Your task to perform on an android device: open a new tab in the chrome app Image 0: 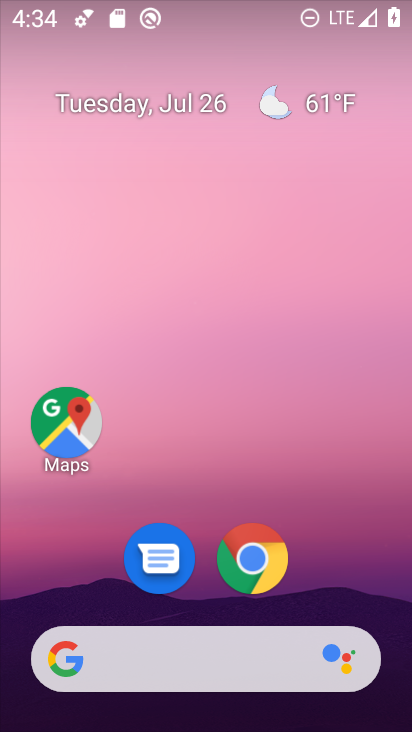
Step 0: click (254, 559)
Your task to perform on an android device: open a new tab in the chrome app Image 1: 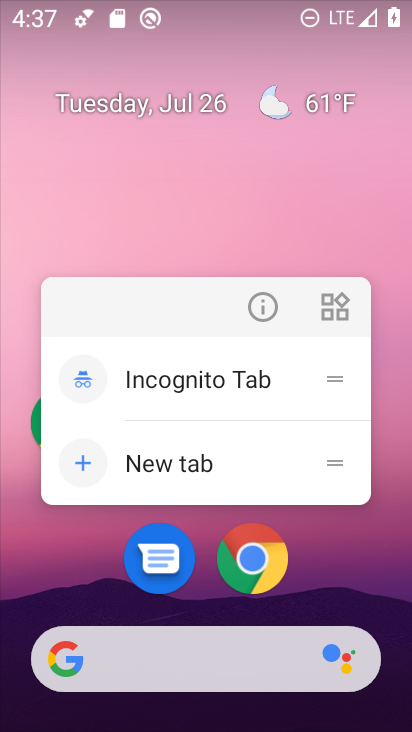
Step 1: click (251, 559)
Your task to perform on an android device: open a new tab in the chrome app Image 2: 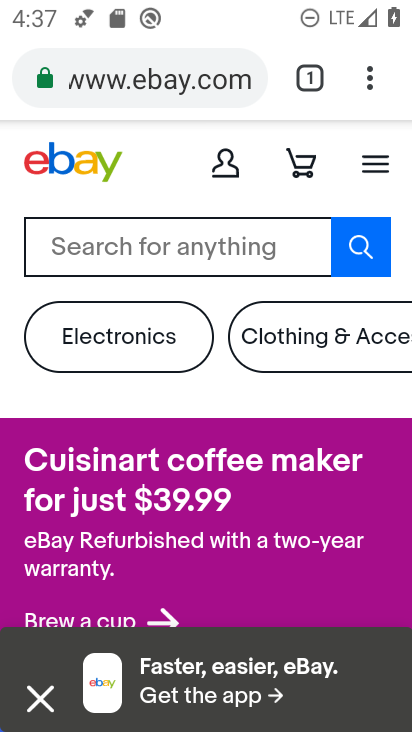
Step 2: click (312, 82)
Your task to perform on an android device: open a new tab in the chrome app Image 3: 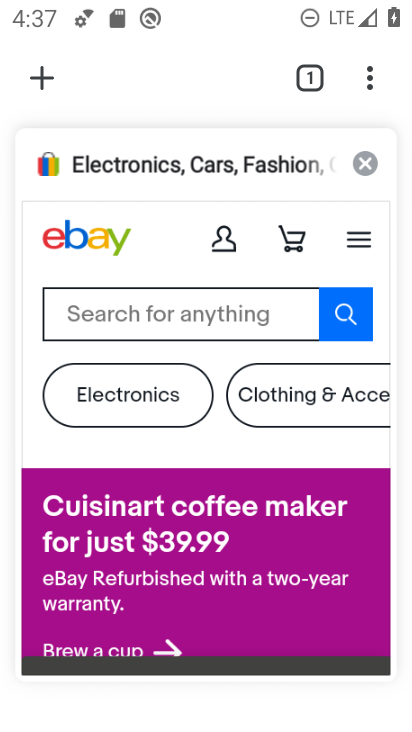
Step 3: click (38, 79)
Your task to perform on an android device: open a new tab in the chrome app Image 4: 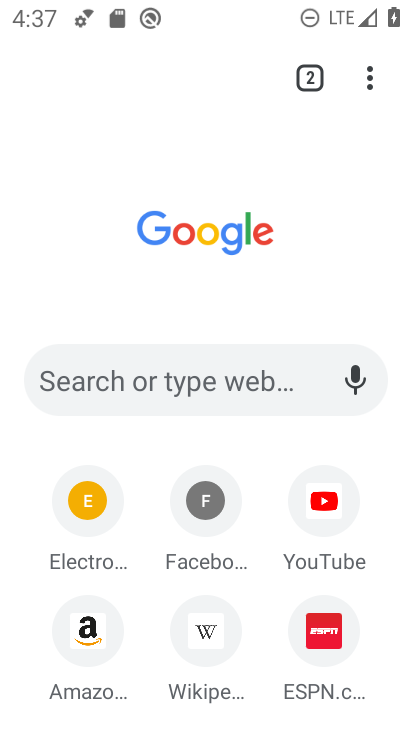
Step 4: task complete